Your task to perform on an android device: change timer sound Image 0: 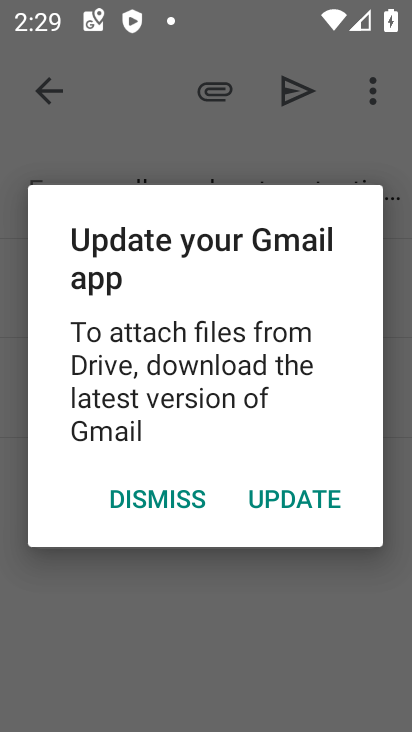
Step 0: press home button
Your task to perform on an android device: change timer sound Image 1: 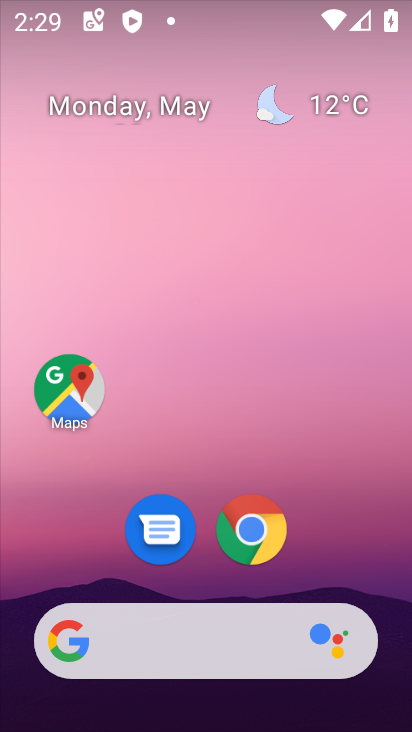
Step 1: drag from (308, 333) to (287, 11)
Your task to perform on an android device: change timer sound Image 2: 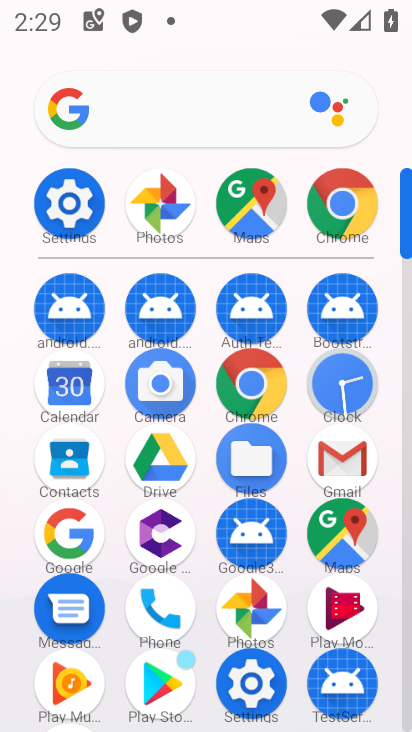
Step 2: click (341, 381)
Your task to perform on an android device: change timer sound Image 3: 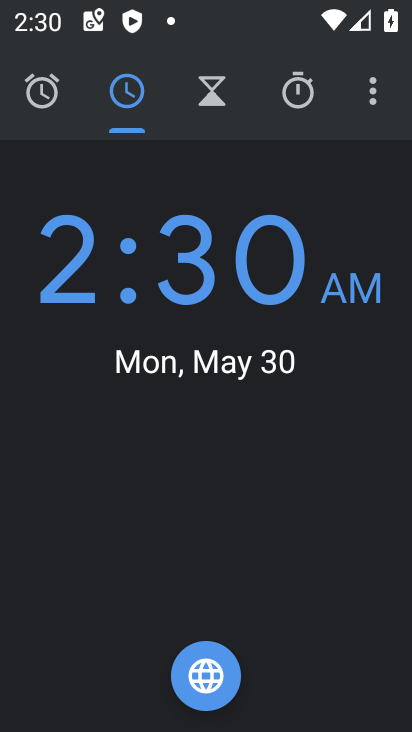
Step 3: click (377, 117)
Your task to perform on an android device: change timer sound Image 4: 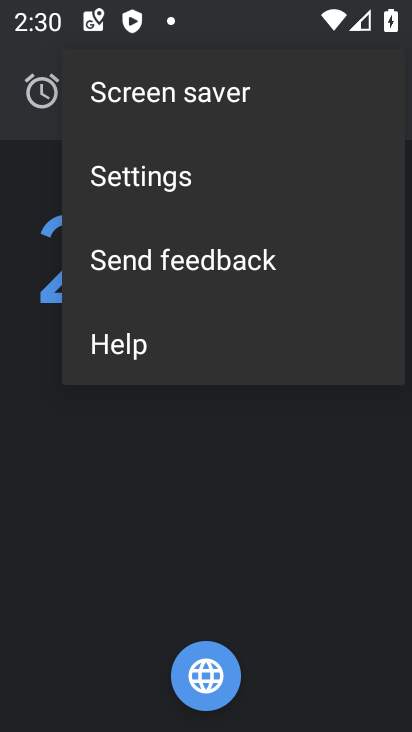
Step 4: click (94, 178)
Your task to perform on an android device: change timer sound Image 5: 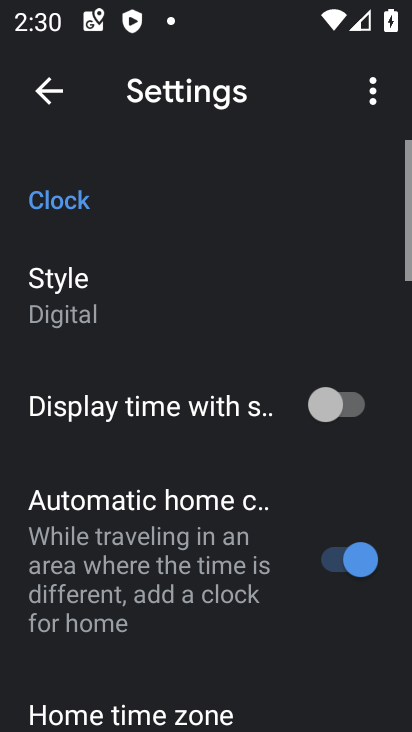
Step 5: drag from (172, 608) to (194, 88)
Your task to perform on an android device: change timer sound Image 6: 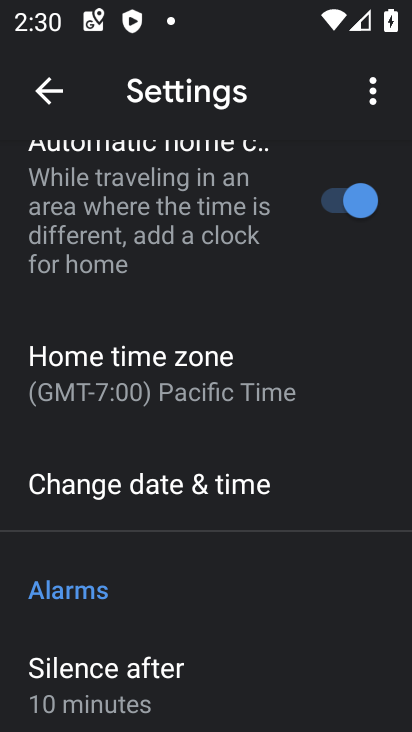
Step 6: drag from (188, 648) to (192, 186)
Your task to perform on an android device: change timer sound Image 7: 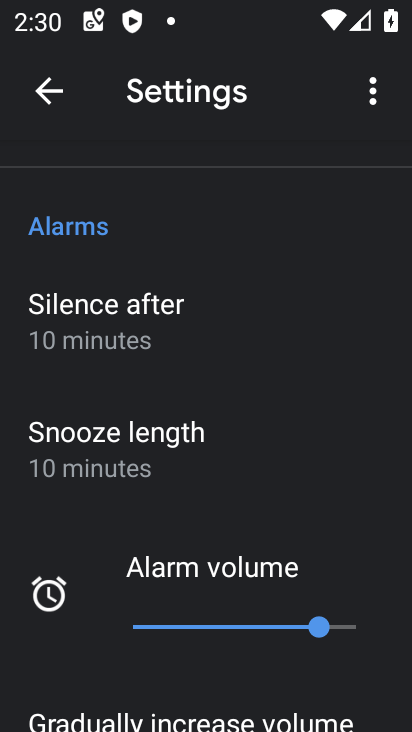
Step 7: drag from (209, 590) to (208, 176)
Your task to perform on an android device: change timer sound Image 8: 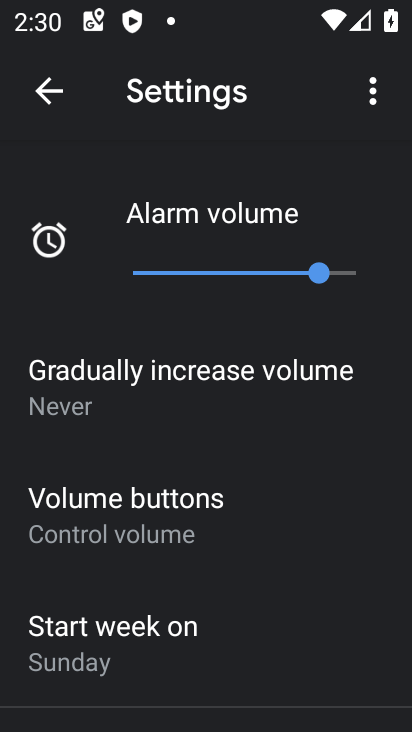
Step 8: drag from (231, 585) to (206, 108)
Your task to perform on an android device: change timer sound Image 9: 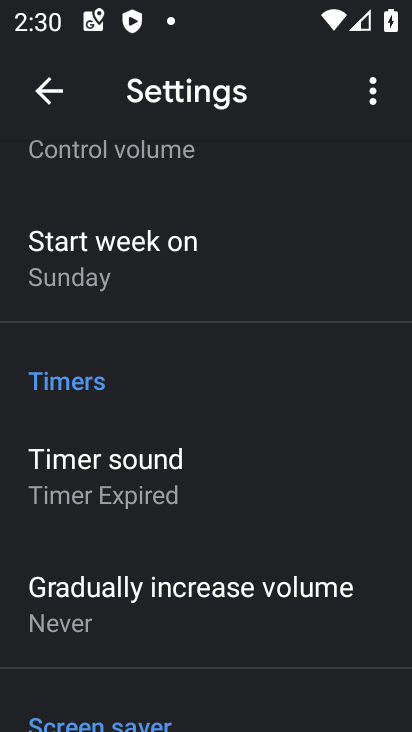
Step 9: click (96, 455)
Your task to perform on an android device: change timer sound Image 10: 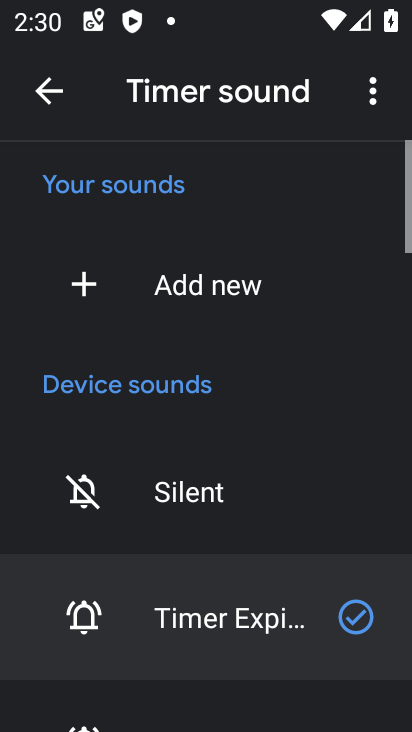
Step 10: drag from (254, 530) to (228, 82)
Your task to perform on an android device: change timer sound Image 11: 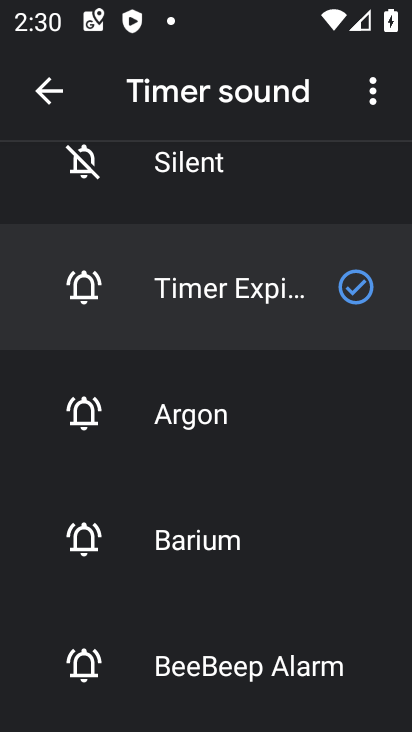
Step 11: drag from (253, 573) to (242, 122)
Your task to perform on an android device: change timer sound Image 12: 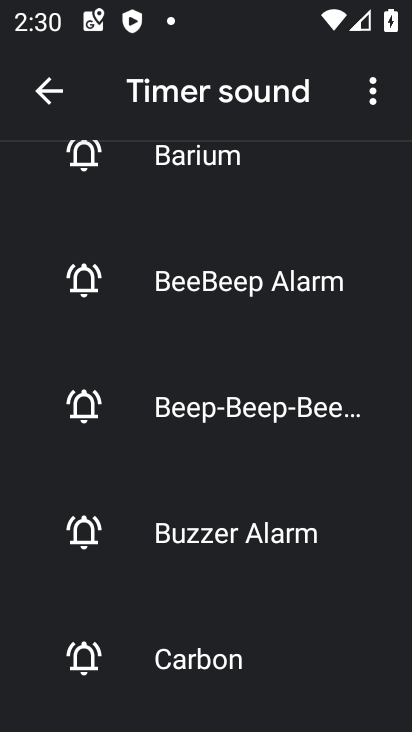
Step 12: click (240, 305)
Your task to perform on an android device: change timer sound Image 13: 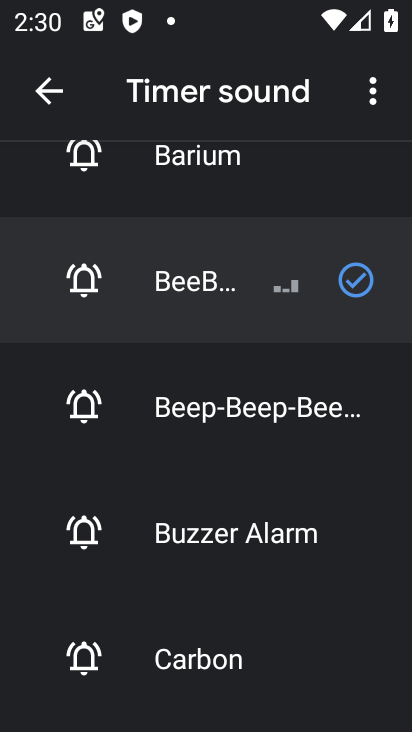
Step 13: task complete